Your task to perform on an android device: Go to settings Image 0: 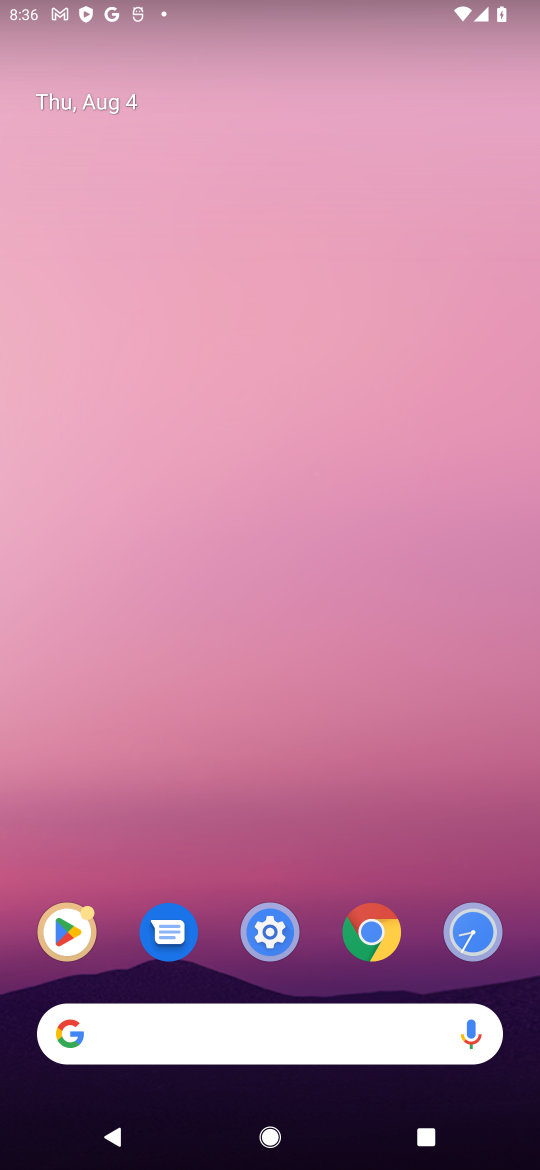
Step 0: click (264, 944)
Your task to perform on an android device: Go to settings Image 1: 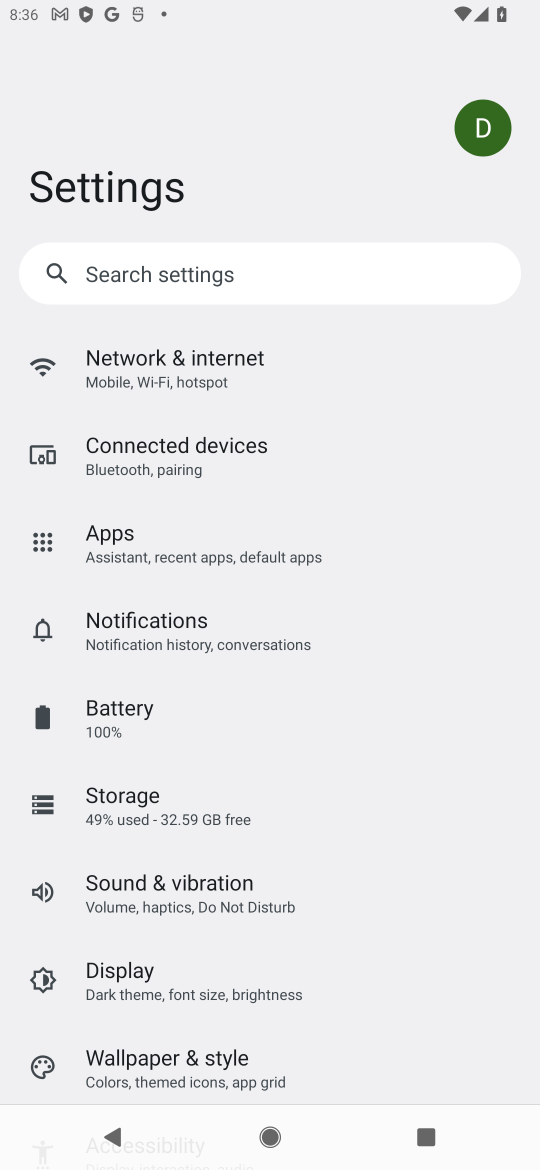
Step 1: task complete